Your task to perform on an android device: add a contact Image 0: 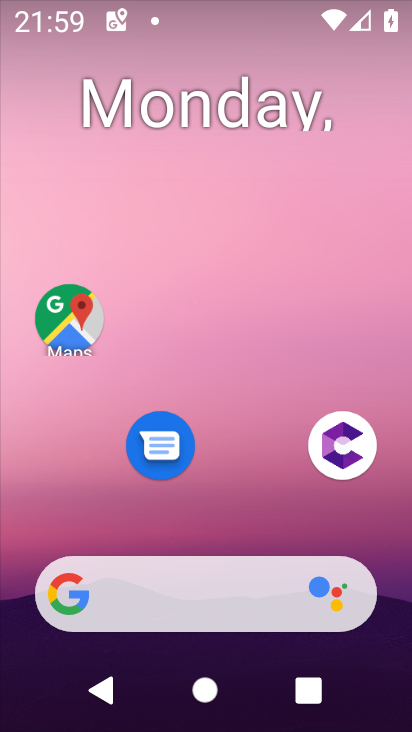
Step 0: drag from (260, 457) to (276, 132)
Your task to perform on an android device: add a contact Image 1: 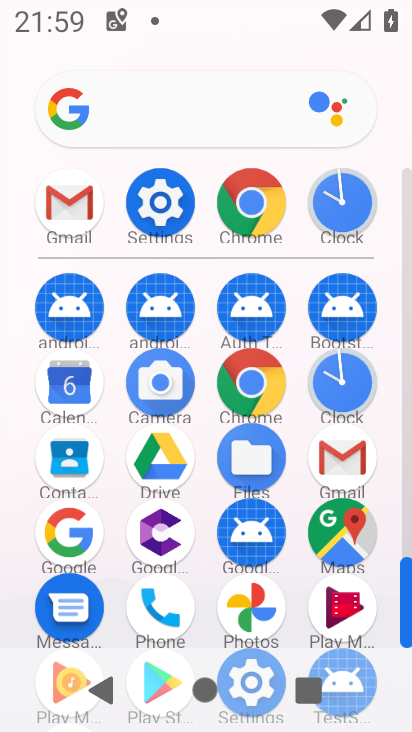
Step 1: click (72, 469)
Your task to perform on an android device: add a contact Image 2: 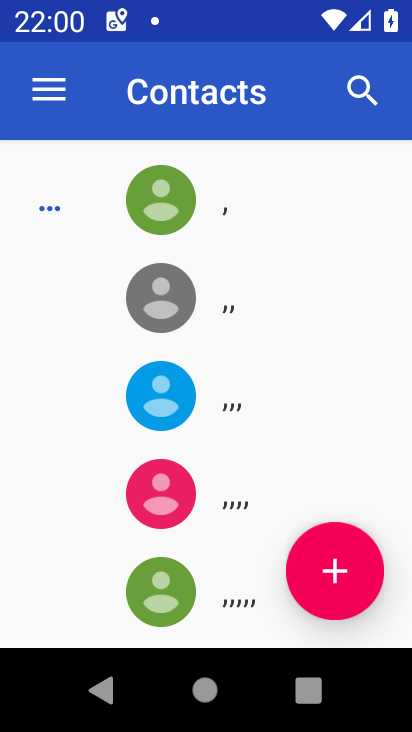
Step 2: click (343, 577)
Your task to perform on an android device: add a contact Image 3: 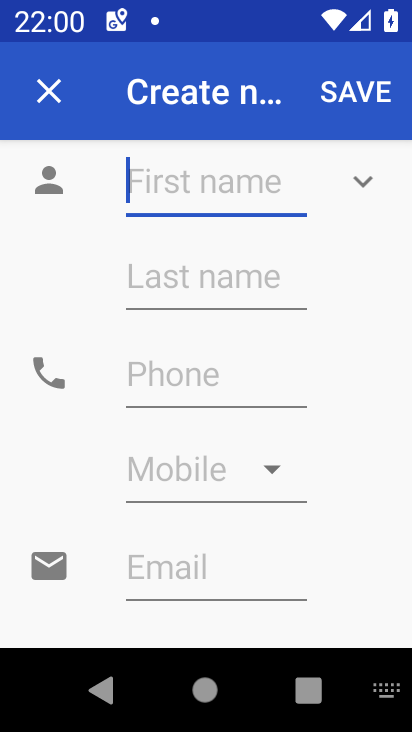
Step 3: click (184, 188)
Your task to perform on an android device: add a contact Image 4: 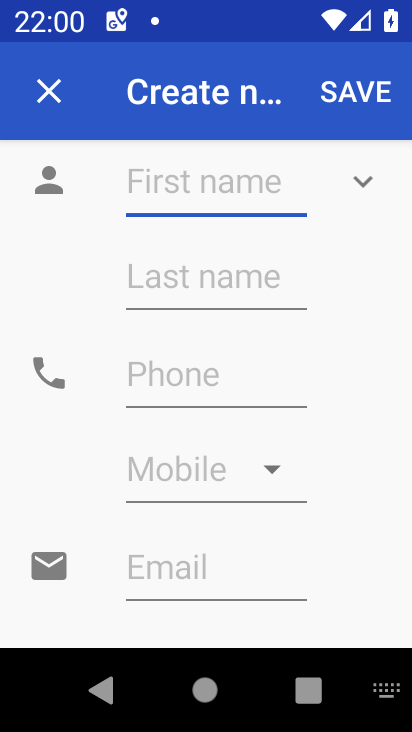
Step 4: type "fddfdfdfdfdf"
Your task to perform on an android device: add a contact Image 5: 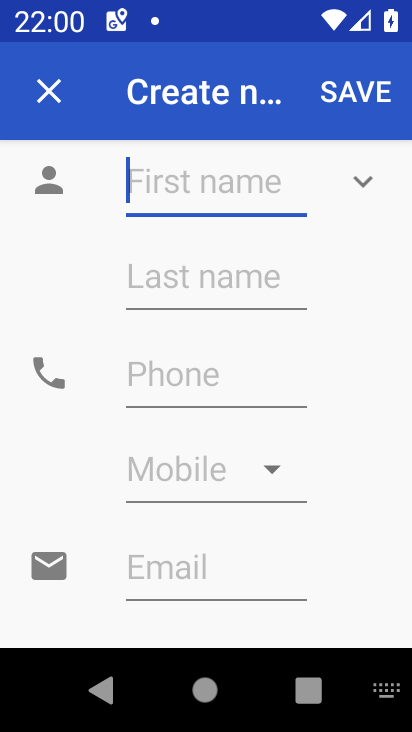
Step 5: click (197, 191)
Your task to perform on an android device: add a contact Image 6: 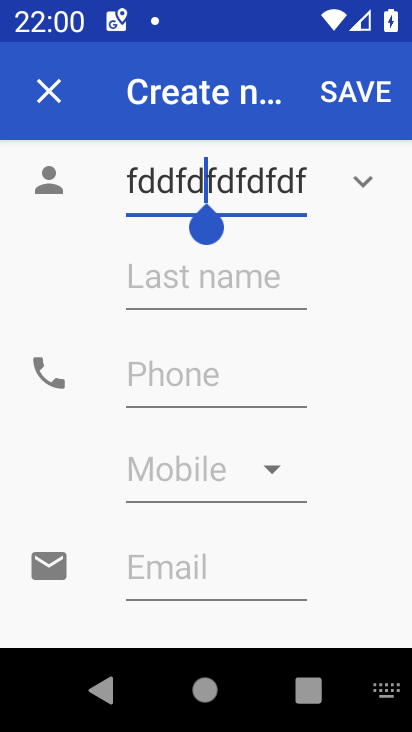
Step 6: click (212, 377)
Your task to perform on an android device: add a contact Image 7: 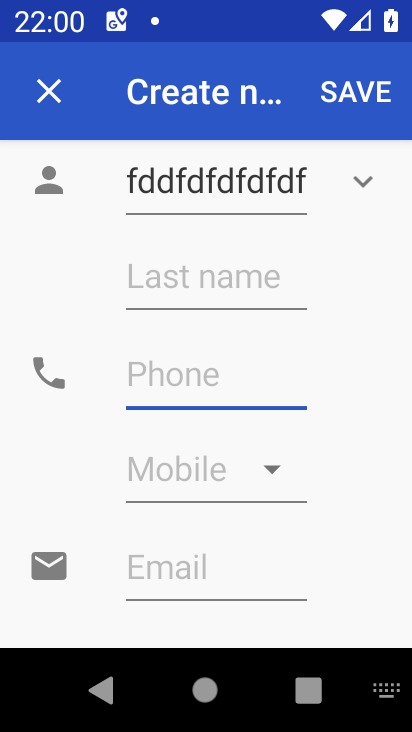
Step 7: type "6436465565656"
Your task to perform on an android device: add a contact Image 8: 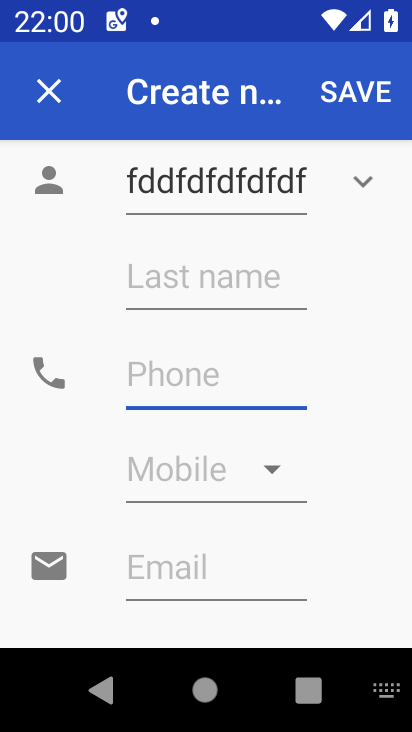
Step 8: click (165, 376)
Your task to perform on an android device: add a contact Image 9: 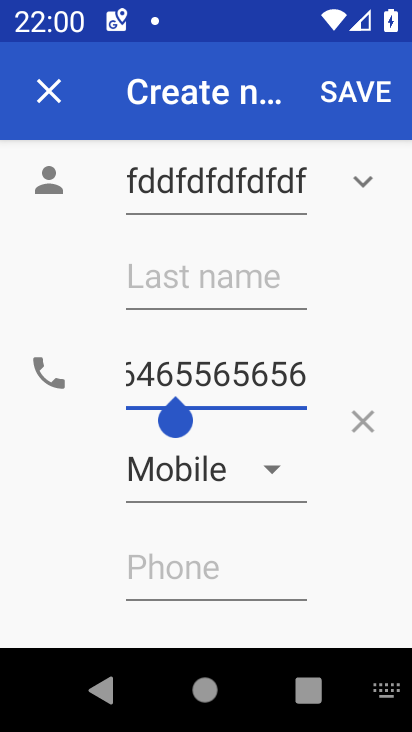
Step 9: click (380, 102)
Your task to perform on an android device: add a contact Image 10: 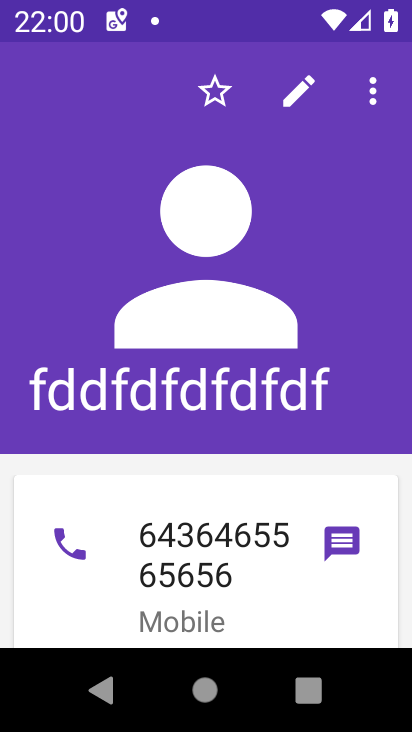
Step 10: task complete